Your task to perform on an android device: Search for Mexican restaurants on Maps Image 0: 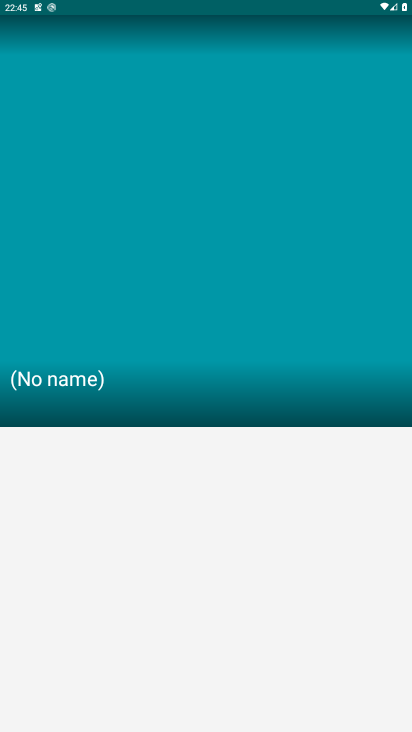
Step 0: press home button
Your task to perform on an android device: Search for Mexican restaurants on Maps Image 1: 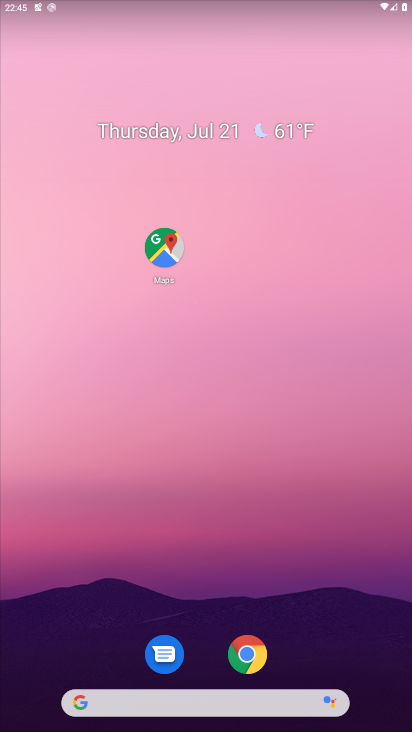
Step 1: click (159, 234)
Your task to perform on an android device: Search for Mexican restaurants on Maps Image 2: 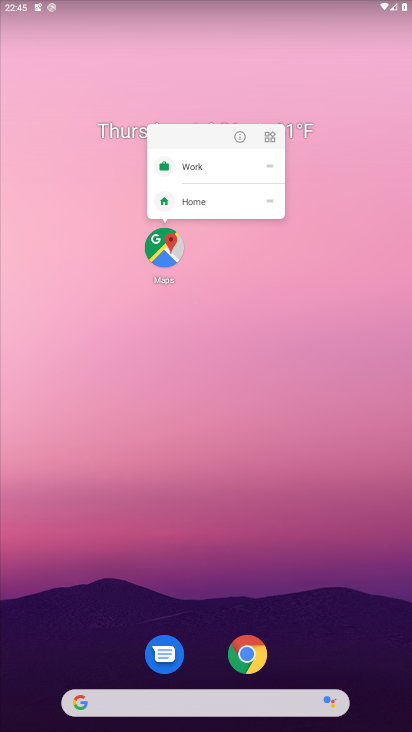
Step 2: click (161, 254)
Your task to perform on an android device: Search for Mexican restaurants on Maps Image 3: 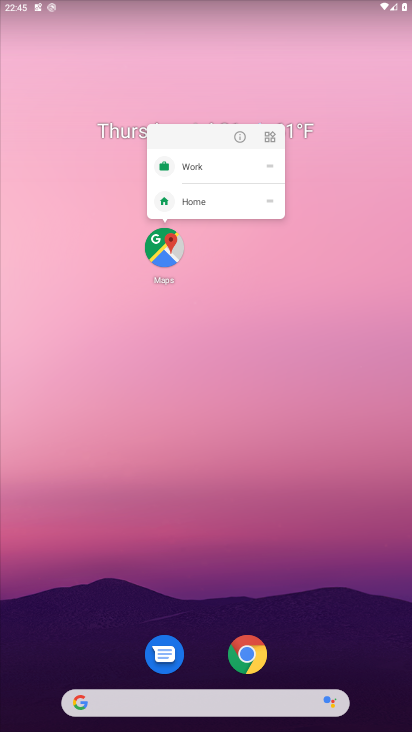
Step 3: click (168, 265)
Your task to perform on an android device: Search for Mexican restaurants on Maps Image 4: 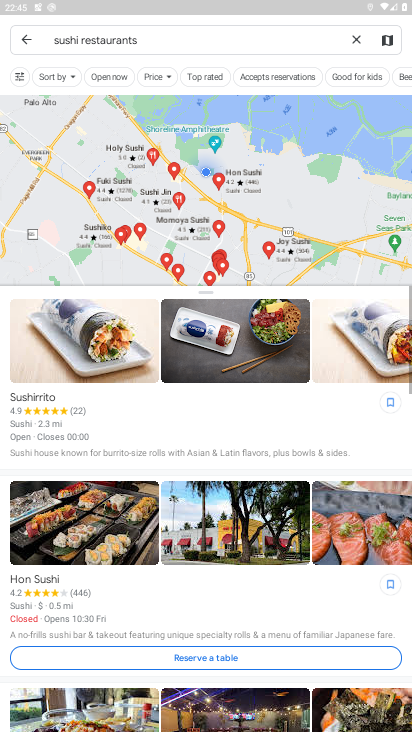
Step 4: click (26, 38)
Your task to perform on an android device: Search for Mexican restaurants on Maps Image 5: 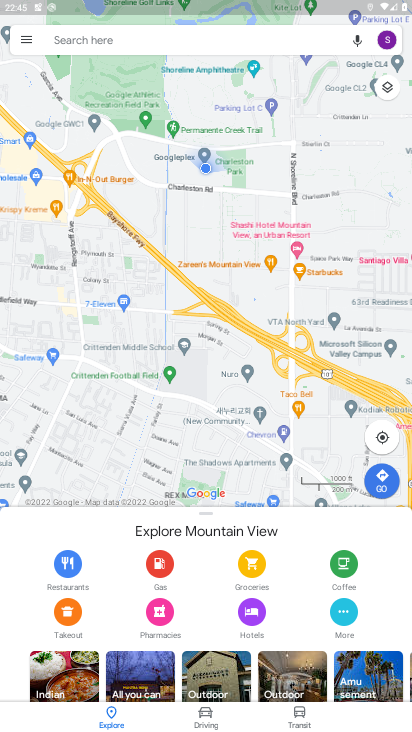
Step 5: click (76, 32)
Your task to perform on an android device: Search for Mexican restaurants on Maps Image 6: 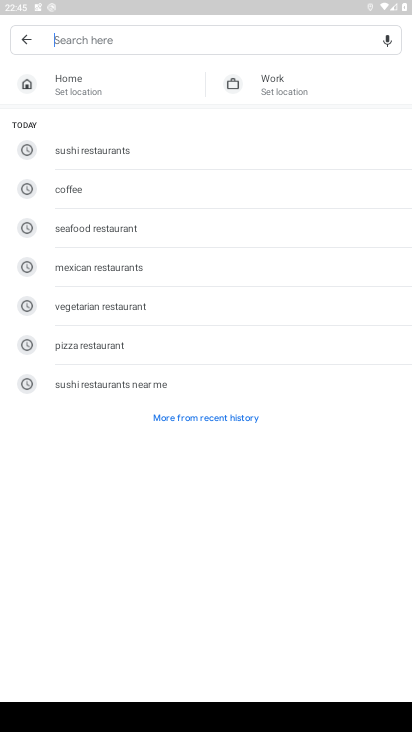
Step 6: click (141, 273)
Your task to perform on an android device: Search for Mexican restaurants on Maps Image 7: 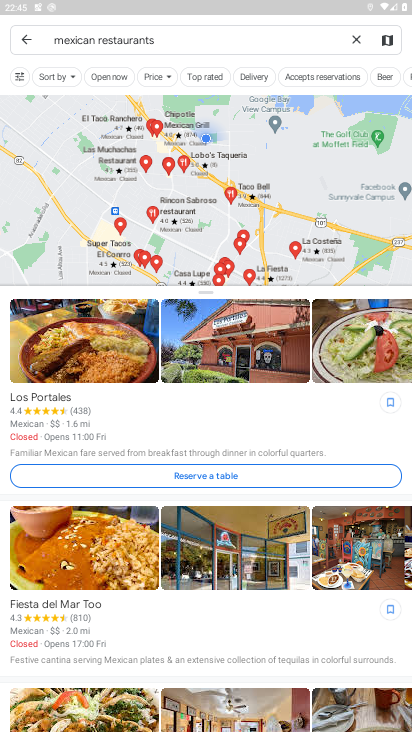
Step 7: task complete